Your task to perform on an android device: When is my next meeting? Image 0: 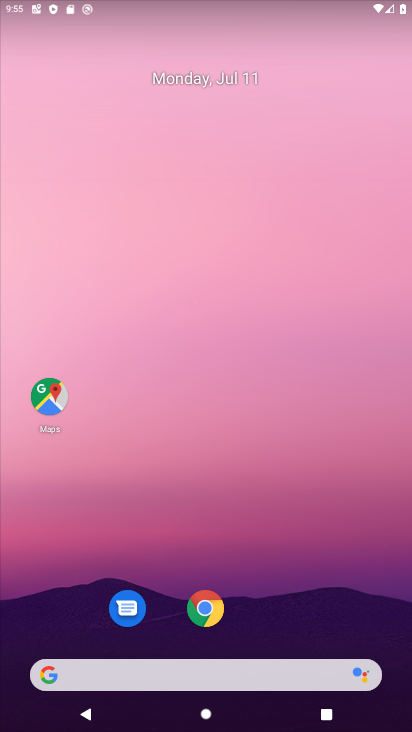
Step 0: drag from (31, 714) to (284, 49)
Your task to perform on an android device: When is my next meeting? Image 1: 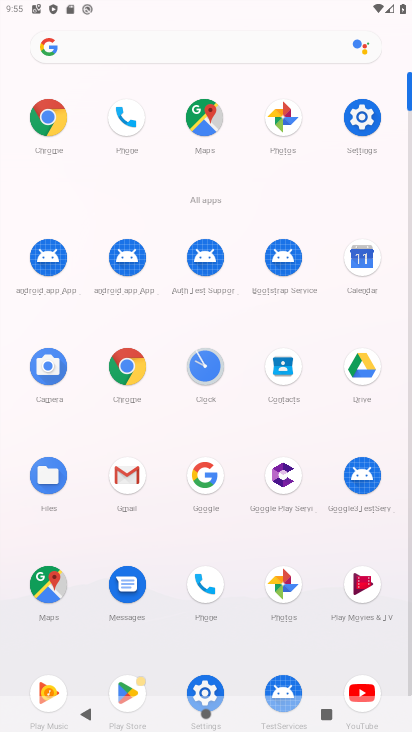
Step 1: click (364, 257)
Your task to perform on an android device: When is my next meeting? Image 2: 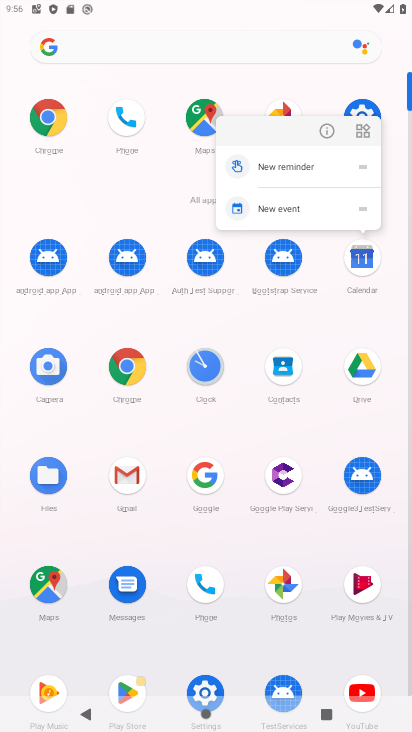
Step 2: click (363, 268)
Your task to perform on an android device: When is my next meeting? Image 3: 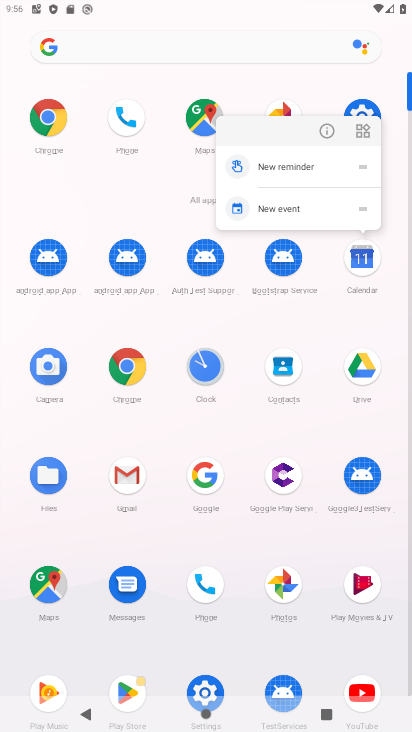
Step 3: click (358, 261)
Your task to perform on an android device: When is my next meeting? Image 4: 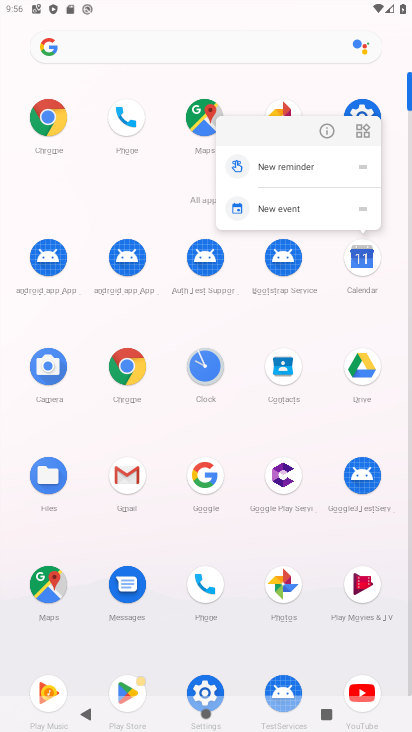
Step 4: click (346, 268)
Your task to perform on an android device: When is my next meeting? Image 5: 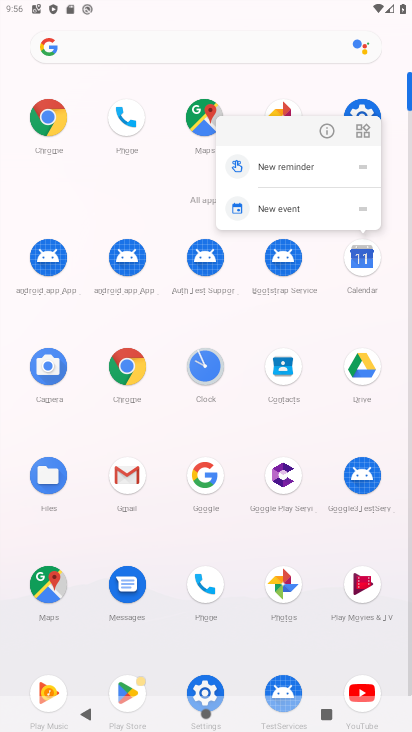
Step 5: task complete